Your task to perform on an android device: When is my next appointment? Image 0: 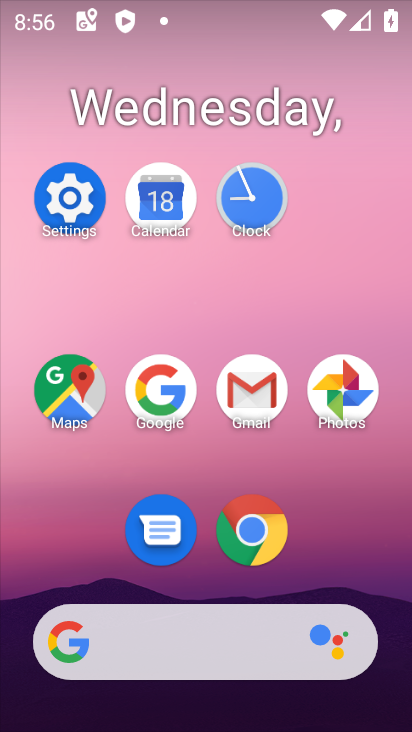
Step 0: click (166, 195)
Your task to perform on an android device: When is my next appointment? Image 1: 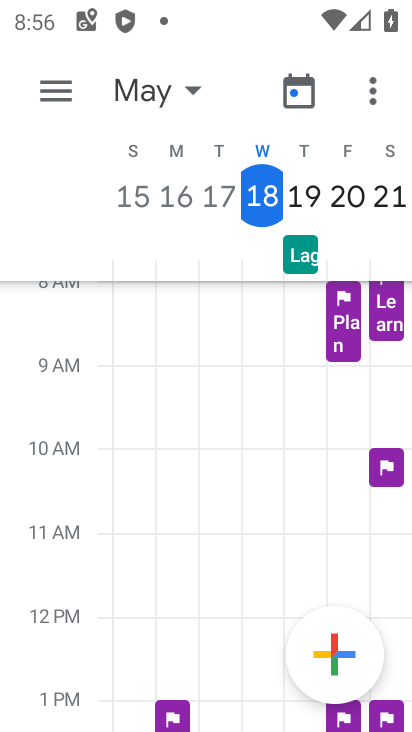
Step 1: click (345, 196)
Your task to perform on an android device: When is my next appointment? Image 2: 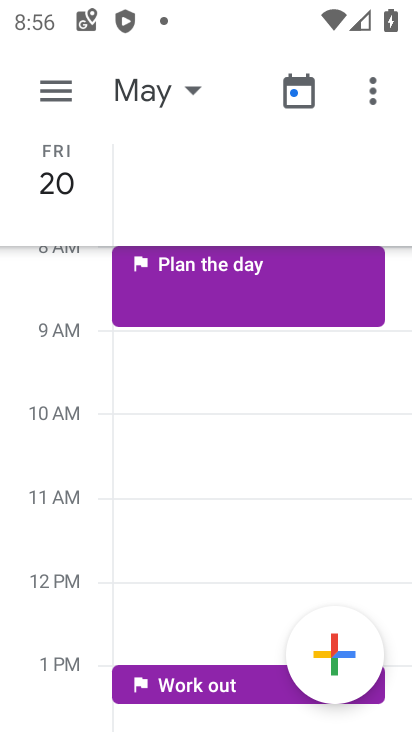
Step 2: task complete